Your task to perform on an android device: turn on airplane mode Image 0: 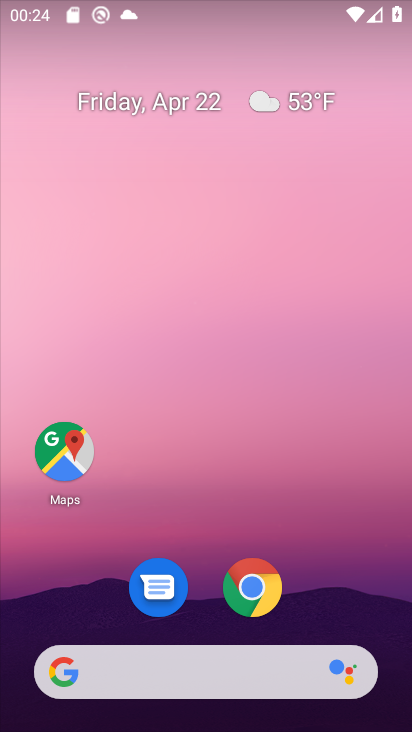
Step 0: drag from (320, 618) to (267, 184)
Your task to perform on an android device: turn on airplane mode Image 1: 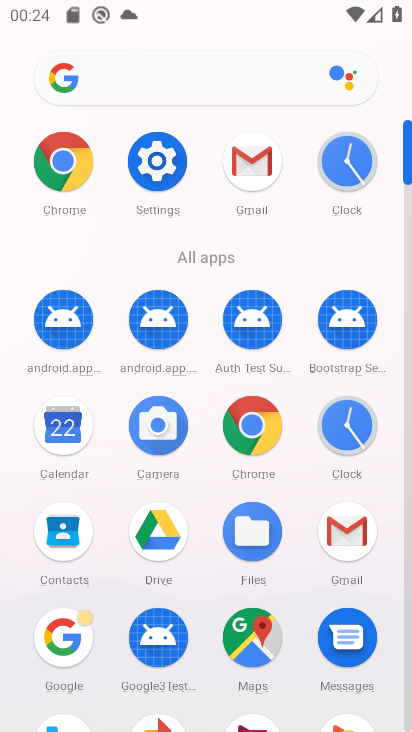
Step 1: click (154, 177)
Your task to perform on an android device: turn on airplane mode Image 2: 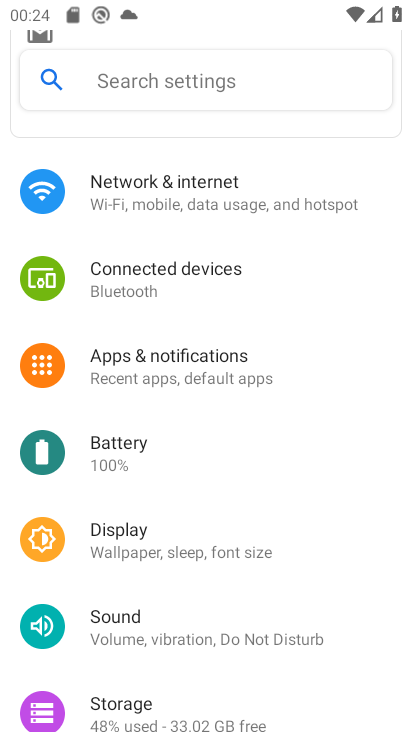
Step 2: click (213, 203)
Your task to perform on an android device: turn on airplane mode Image 3: 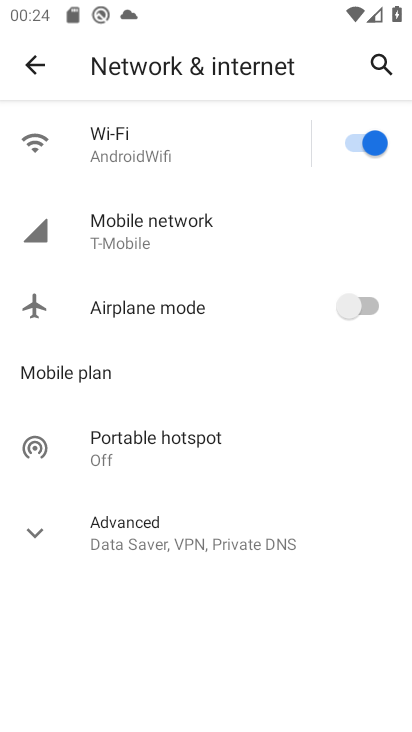
Step 3: click (358, 313)
Your task to perform on an android device: turn on airplane mode Image 4: 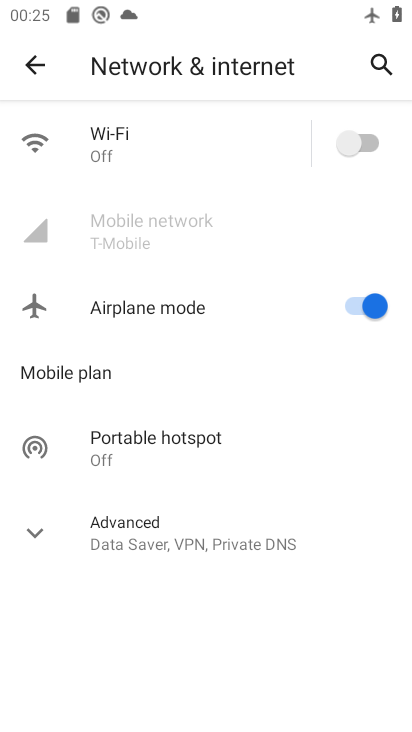
Step 4: task complete